Your task to perform on an android device: Show me popular videos on Youtube Image 0: 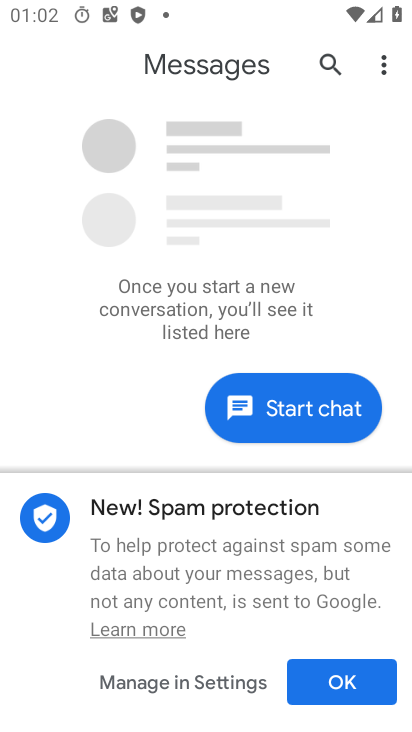
Step 0: press home button
Your task to perform on an android device: Show me popular videos on Youtube Image 1: 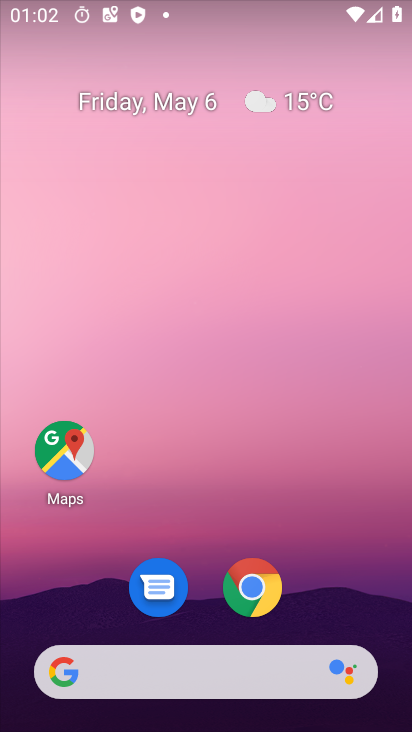
Step 1: click (298, 440)
Your task to perform on an android device: Show me popular videos on Youtube Image 2: 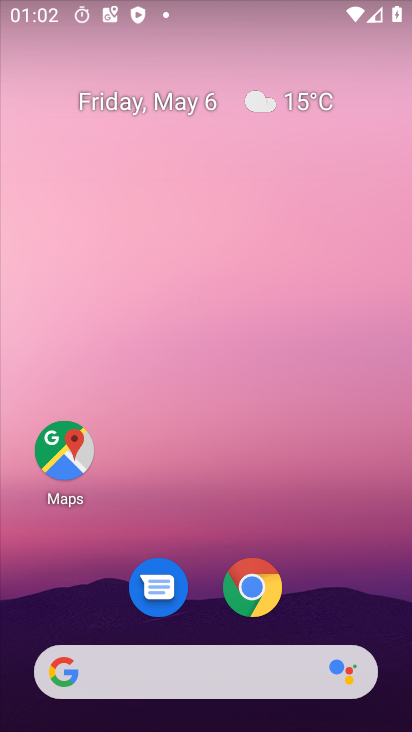
Step 2: drag from (373, 566) to (303, 168)
Your task to perform on an android device: Show me popular videos on Youtube Image 3: 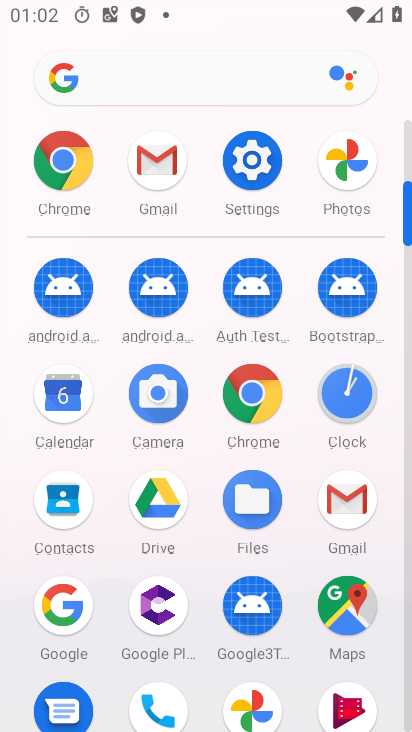
Step 3: drag from (397, 143) to (385, 90)
Your task to perform on an android device: Show me popular videos on Youtube Image 4: 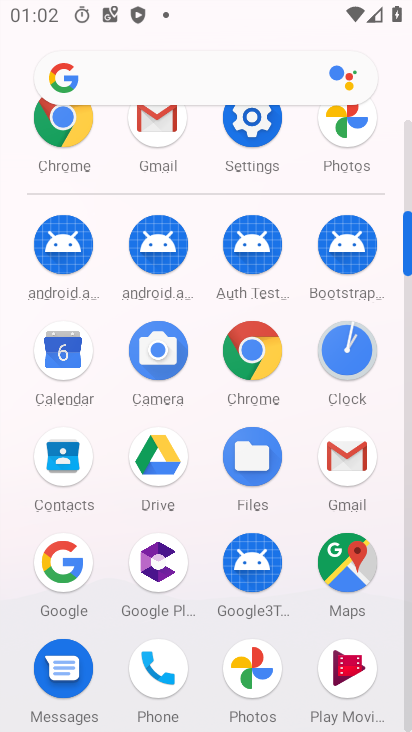
Step 4: drag from (410, 215) to (398, 104)
Your task to perform on an android device: Show me popular videos on Youtube Image 5: 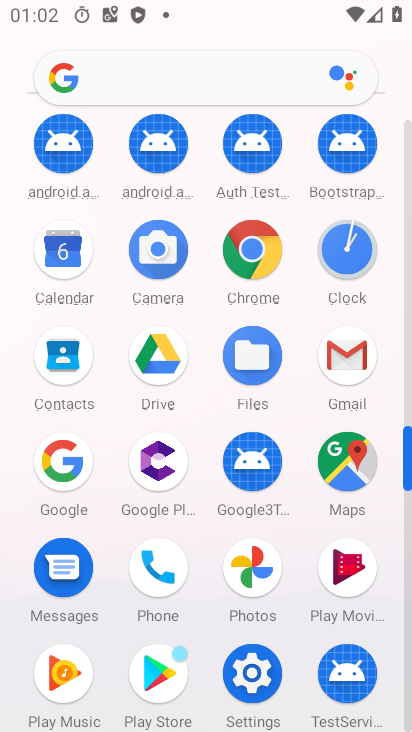
Step 5: drag from (406, 442) to (402, 239)
Your task to perform on an android device: Show me popular videos on Youtube Image 6: 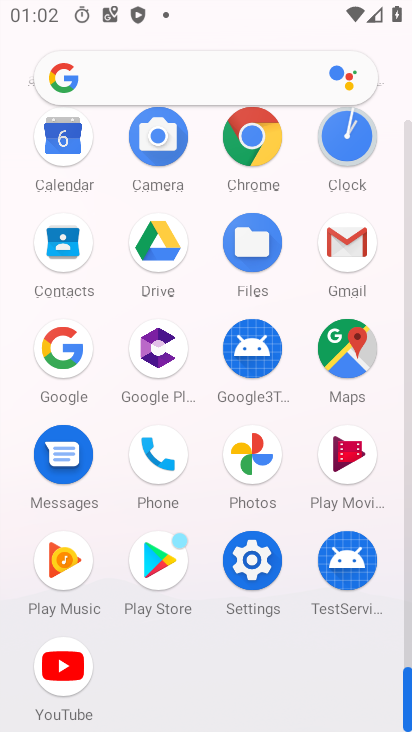
Step 6: click (83, 672)
Your task to perform on an android device: Show me popular videos on Youtube Image 7: 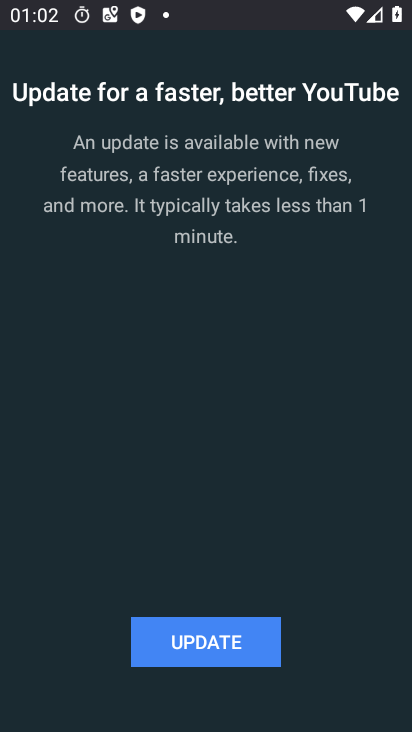
Step 7: click (197, 638)
Your task to perform on an android device: Show me popular videos on Youtube Image 8: 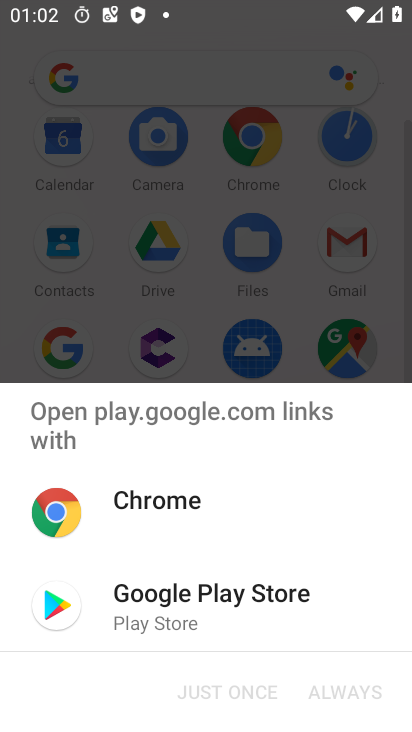
Step 8: click (164, 607)
Your task to perform on an android device: Show me popular videos on Youtube Image 9: 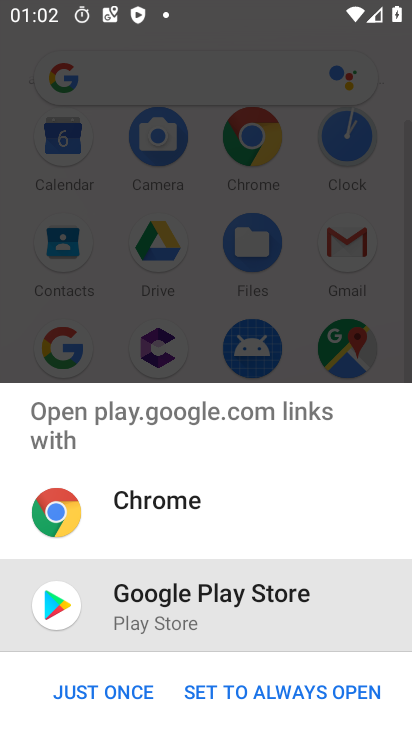
Step 9: click (110, 694)
Your task to perform on an android device: Show me popular videos on Youtube Image 10: 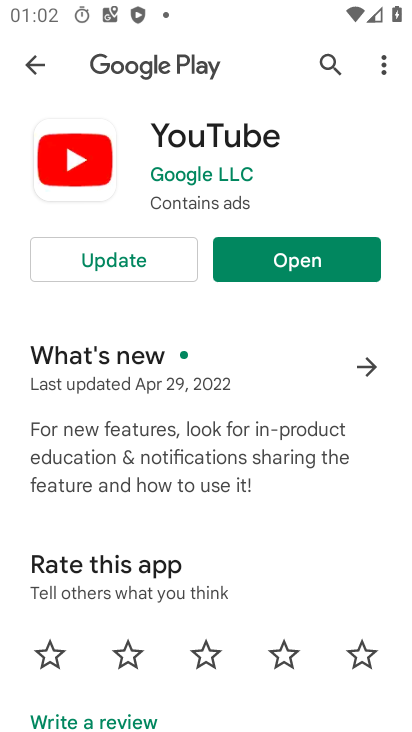
Step 10: click (149, 264)
Your task to perform on an android device: Show me popular videos on Youtube Image 11: 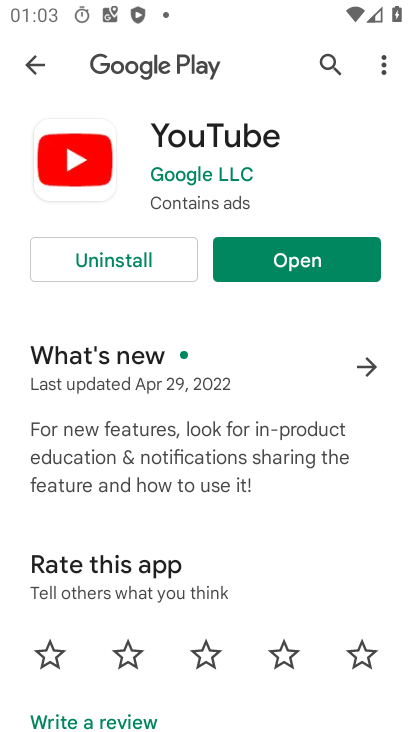
Step 11: click (267, 257)
Your task to perform on an android device: Show me popular videos on Youtube Image 12: 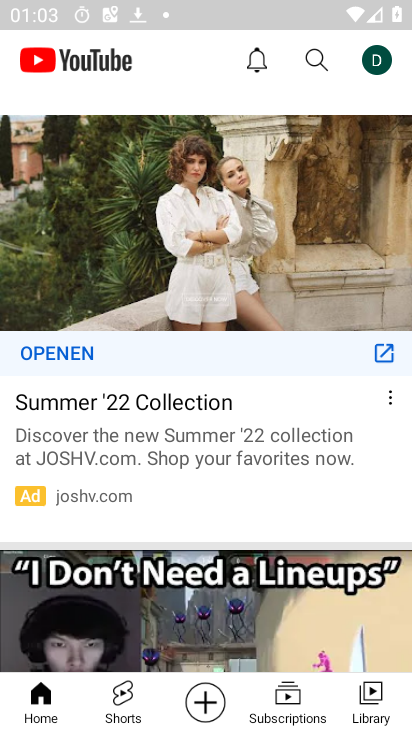
Step 12: click (306, 51)
Your task to perform on an android device: Show me popular videos on Youtube Image 13: 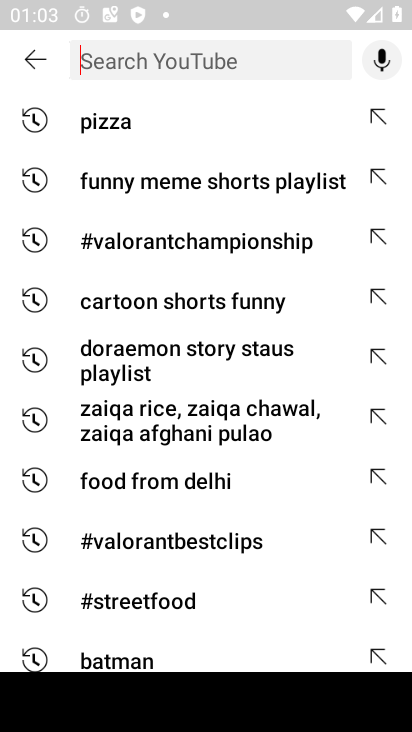
Step 13: click (119, 61)
Your task to perform on an android device: Show me popular videos on Youtube Image 14: 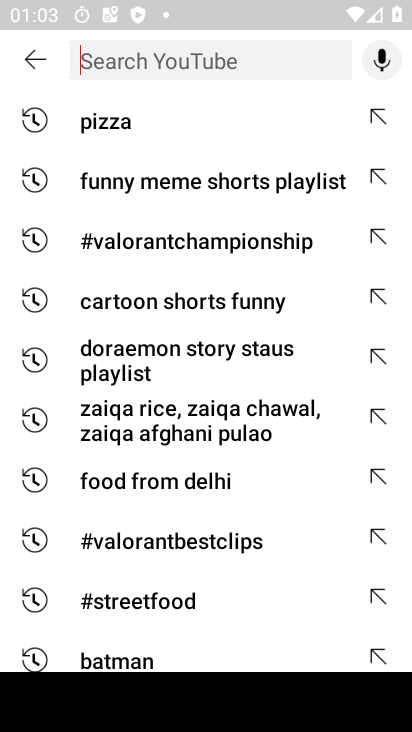
Step 14: type "popular videos"
Your task to perform on an android device: Show me popular videos on Youtube Image 15: 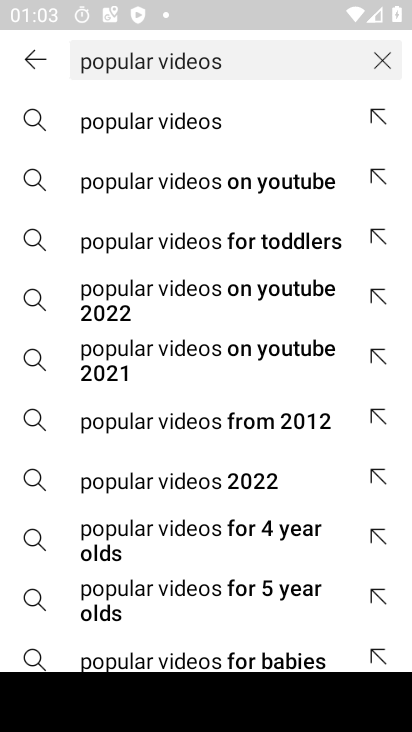
Step 15: click (220, 187)
Your task to perform on an android device: Show me popular videos on Youtube Image 16: 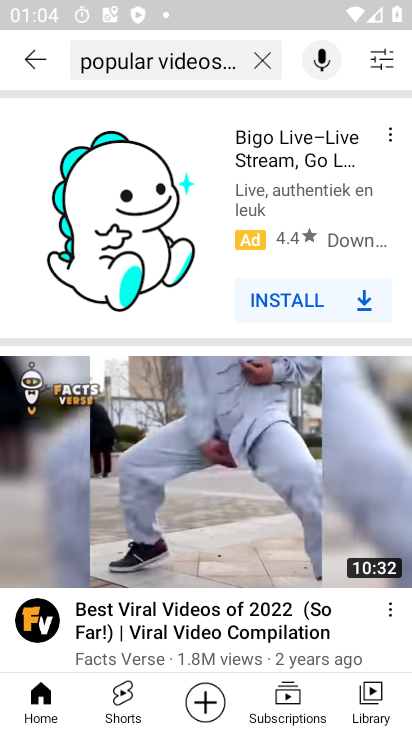
Step 16: task complete